Your task to perform on an android device: What's the weather? Image 0: 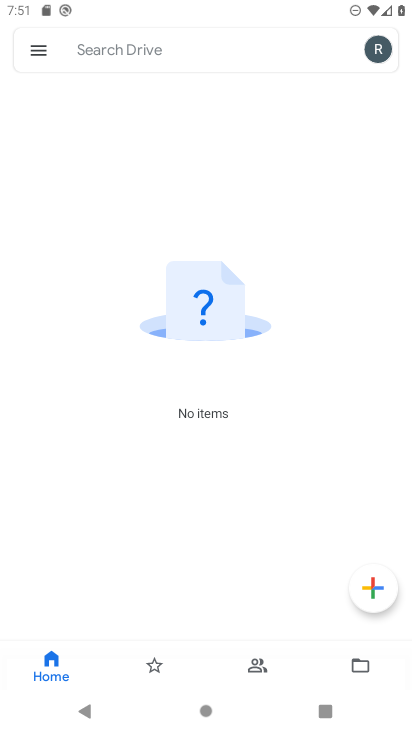
Step 0: press home button
Your task to perform on an android device: What's the weather? Image 1: 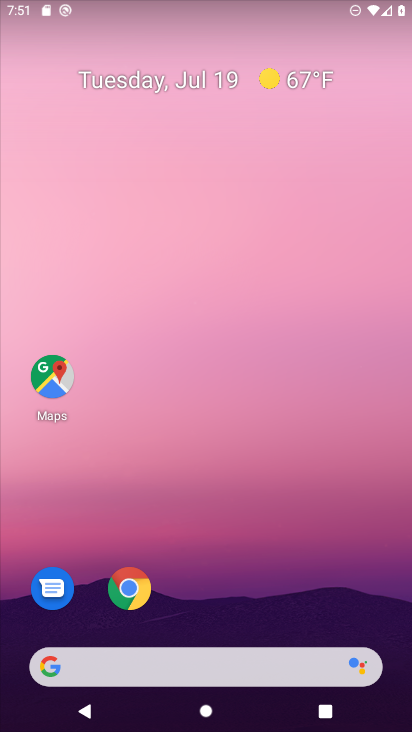
Step 1: click (189, 671)
Your task to perform on an android device: What's the weather? Image 2: 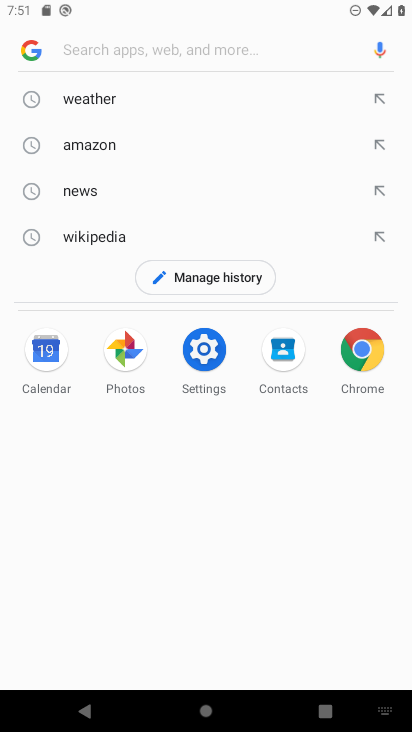
Step 2: click (111, 96)
Your task to perform on an android device: What's the weather? Image 3: 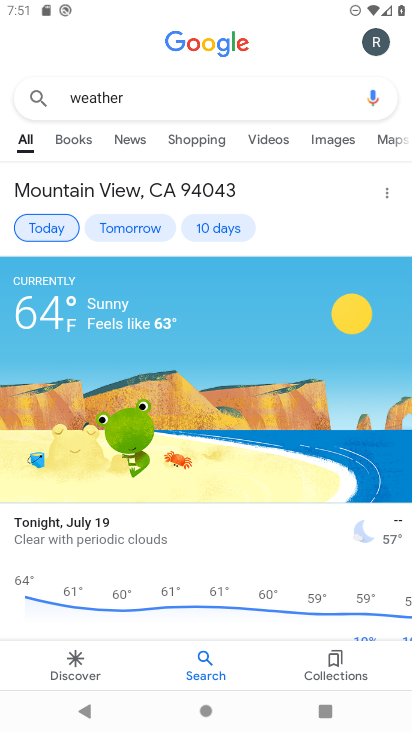
Step 3: task complete